Your task to perform on an android device: remove spam from my inbox in the gmail app Image 0: 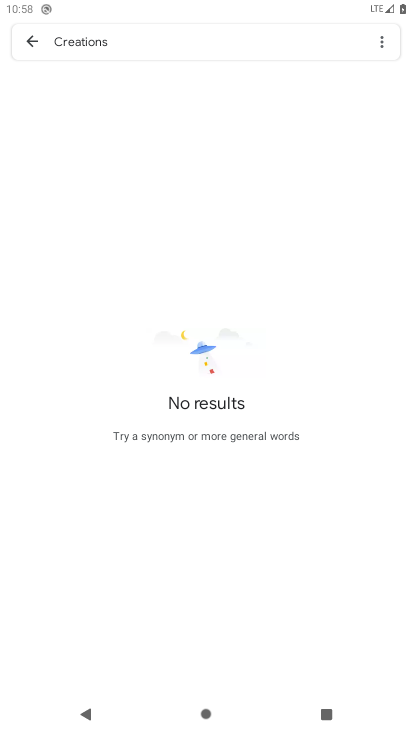
Step 0: press home button
Your task to perform on an android device: remove spam from my inbox in the gmail app Image 1: 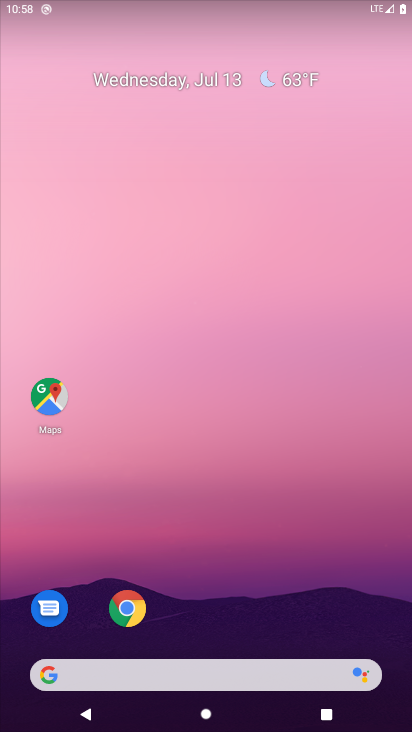
Step 1: drag from (272, 596) to (345, 202)
Your task to perform on an android device: remove spam from my inbox in the gmail app Image 2: 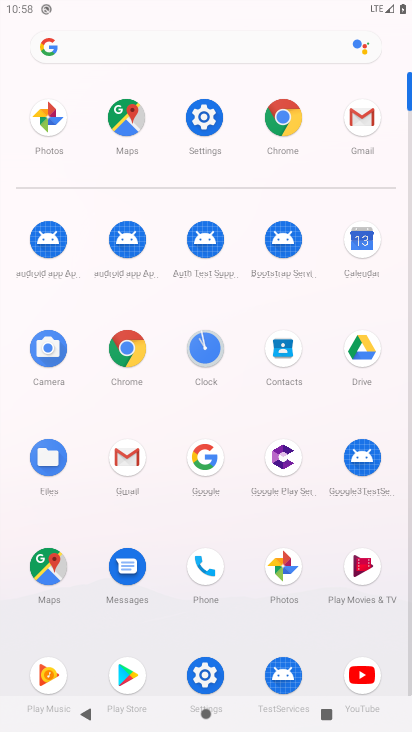
Step 2: click (131, 456)
Your task to perform on an android device: remove spam from my inbox in the gmail app Image 3: 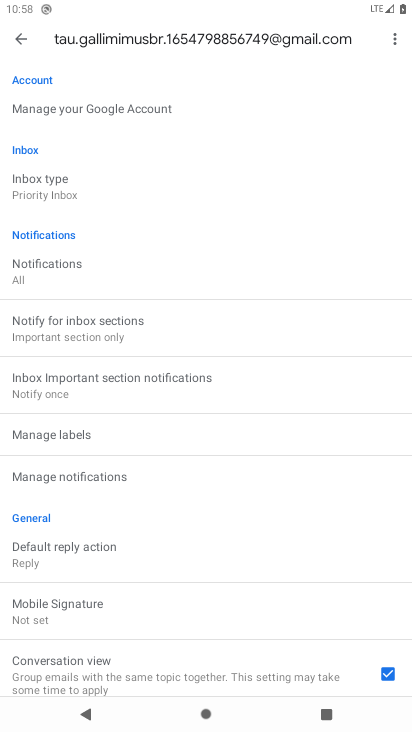
Step 3: press home button
Your task to perform on an android device: remove spam from my inbox in the gmail app Image 4: 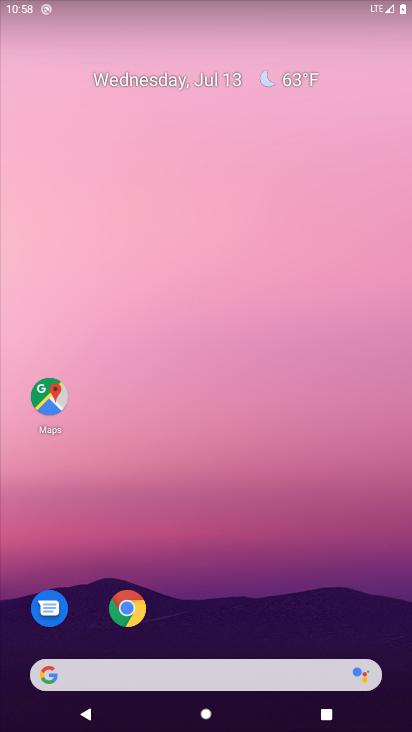
Step 4: drag from (286, 544) to (377, 50)
Your task to perform on an android device: remove spam from my inbox in the gmail app Image 5: 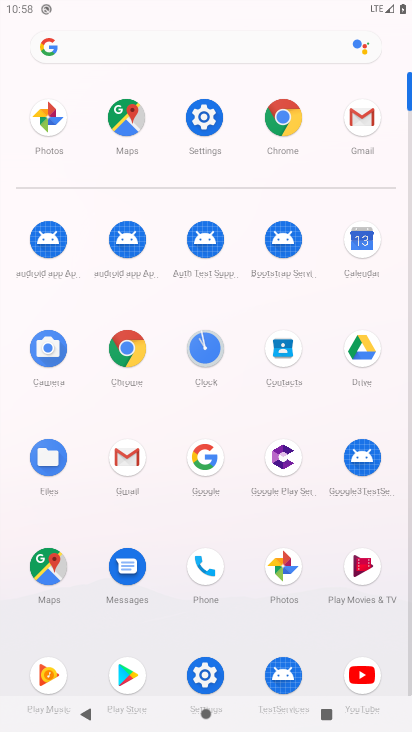
Step 5: click (130, 445)
Your task to perform on an android device: remove spam from my inbox in the gmail app Image 6: 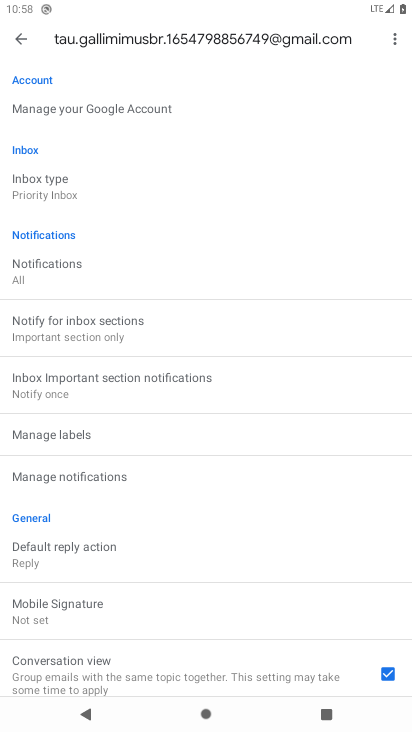
Step 6: click (23, 33)
Your task to perform on an android device: remove spam from my inbox in the gmail app Image 7: 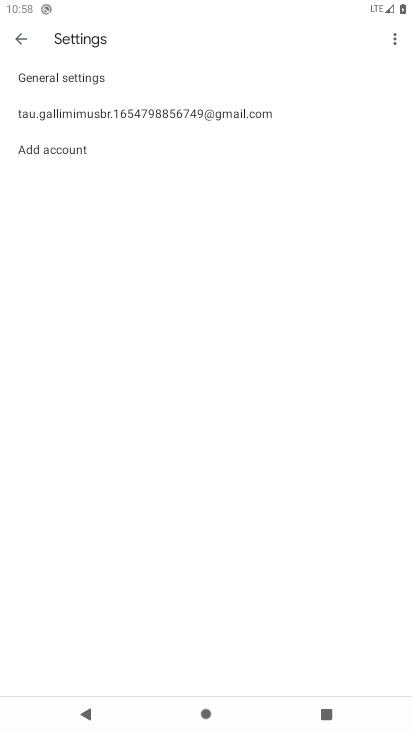
Step 7: click (25, 32)
Your task to perform on an android device: remove spam from my inbox in the gmail app Image 8: 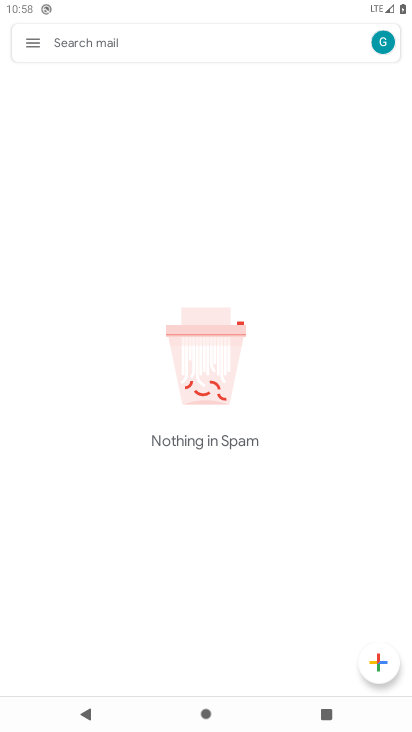
Step 8: click (25, 32)
Your task to perform on an android device: remove spam from my inbox in the gmail app Image 9: 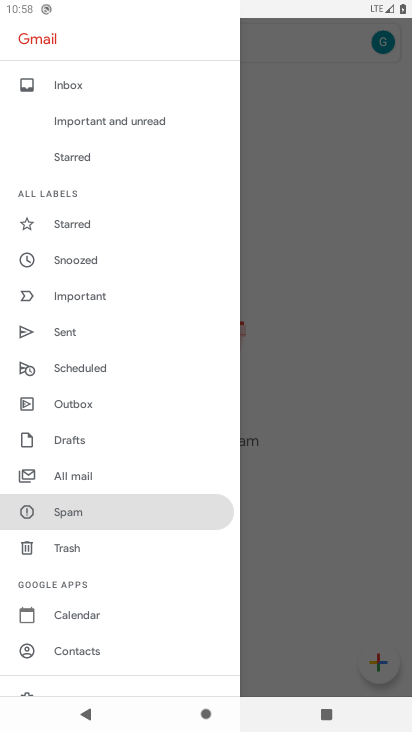
Step 9: click (101, 517)
Your task to perform on an android device: remove spam from my inbox in the gmail app Image 10: 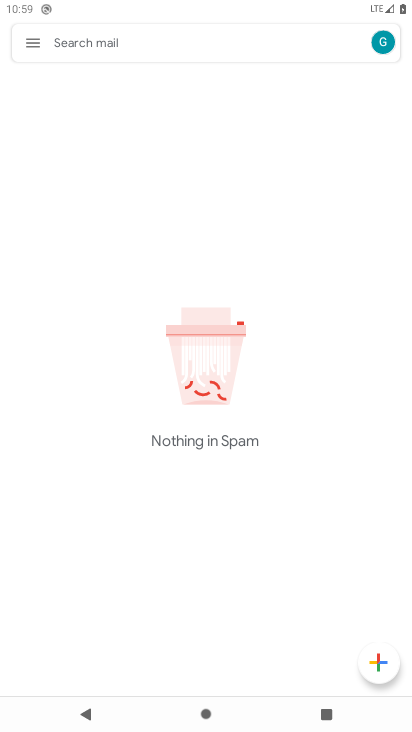
Step 10: task complete